Your task to perform on an android device: toggle wifi Image 0: 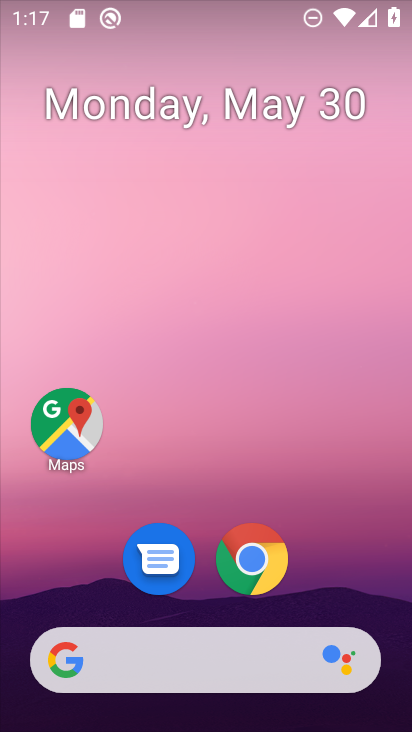
Step 0: drag from (339, 586) to (385, 5)
Your task to perform on an android device: toggle wifi Image 1: 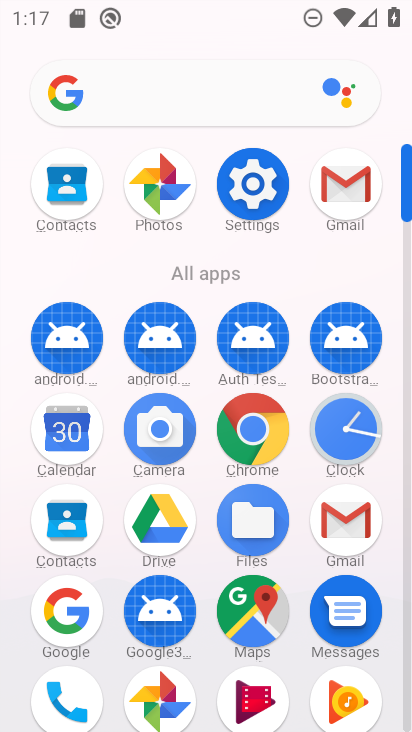
Step 1: click (248, 176)
Your task to perform on an android device: toggle wifi Image 2: 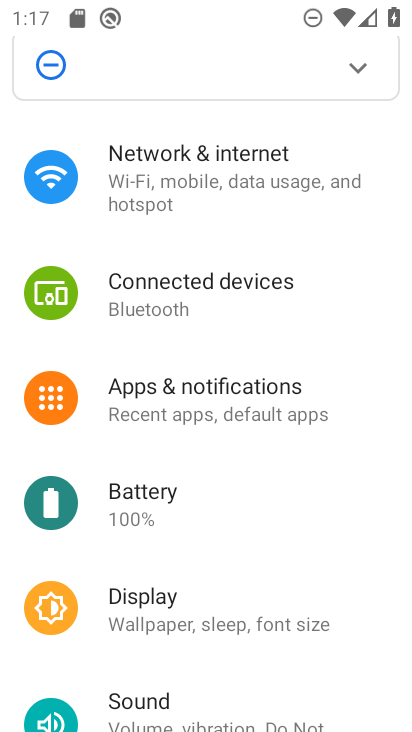
Step 2: click (193, 191)
Your task to perform on an android device: toggle wifi Image 3: 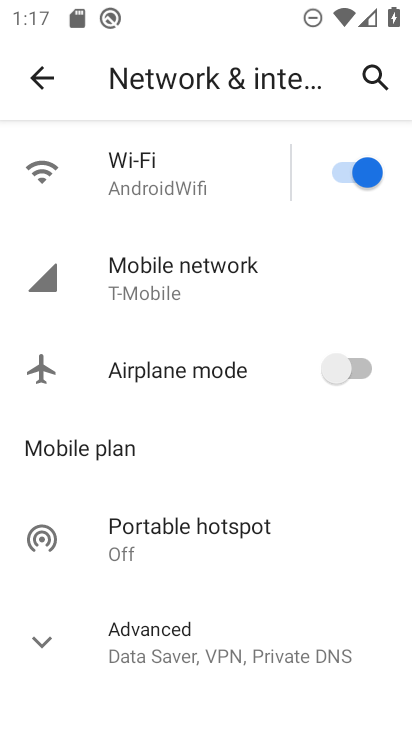
Step 3: click (139, 184)
Your task to perform on an android device: toggle wifi Image 4: 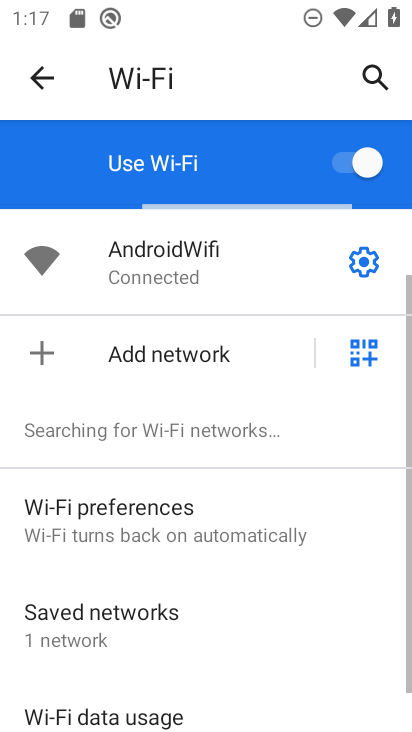
Step 4: click (351, 170)
Your task to perform on an android device: toggle wifi Image 5: 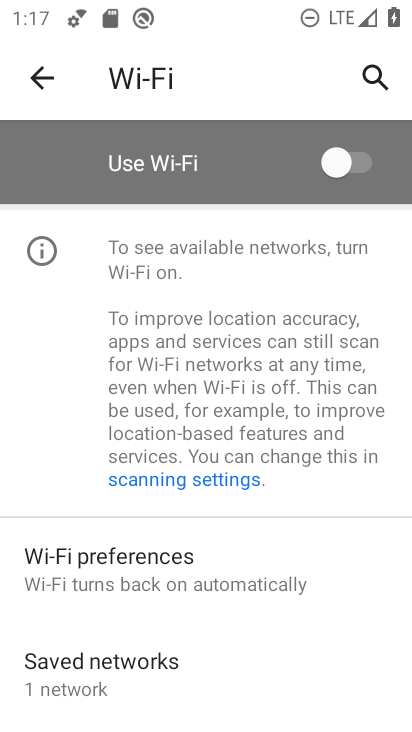
Step 5: task complete